Your task to perform on an android device: Open Google Chrome Image 0: 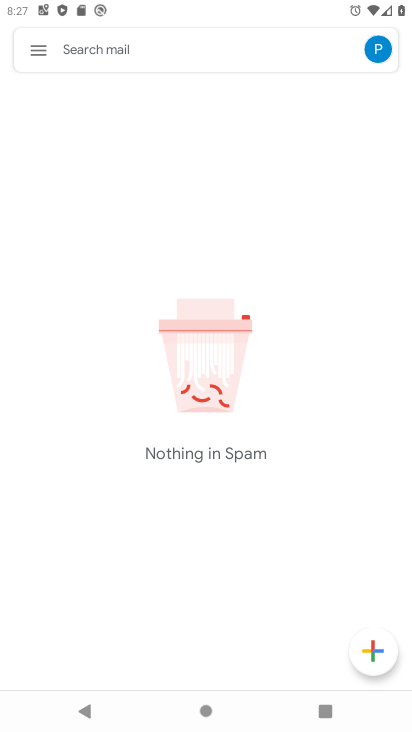
Step 0: press home button
Your task to perform on an android device: Open Google Chrome Image 1: 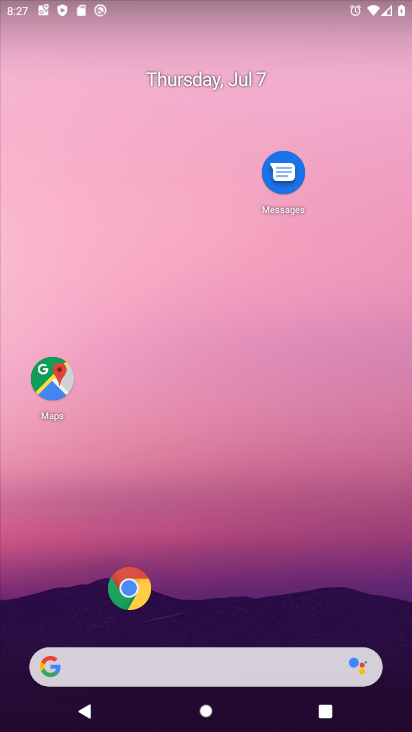
Step 1: click (131, 588)
Your task to perform on an android device: Open Google Chrome Image 2: 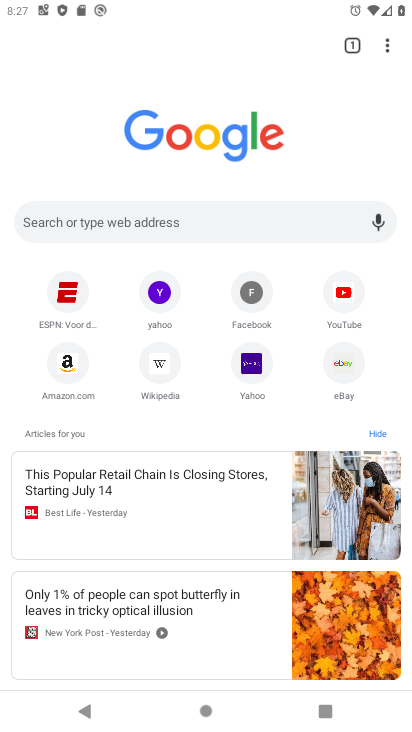
Step 2: task complete